Your task to perform on an android device: change the clock display to digital Image 0: 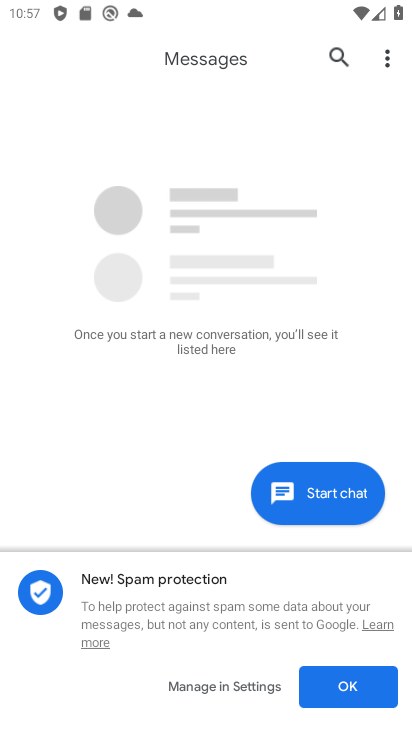
Step 0: press back button
Your task to perform on an android device: change the clock display to digital Image 1: 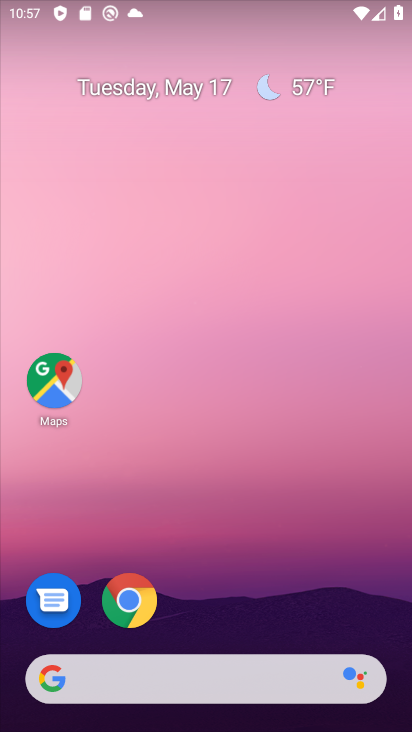
Step 1: drag from (282, 661) to (233, 242)
Your task to perform on an android device: change the clock display to digital Image 2: 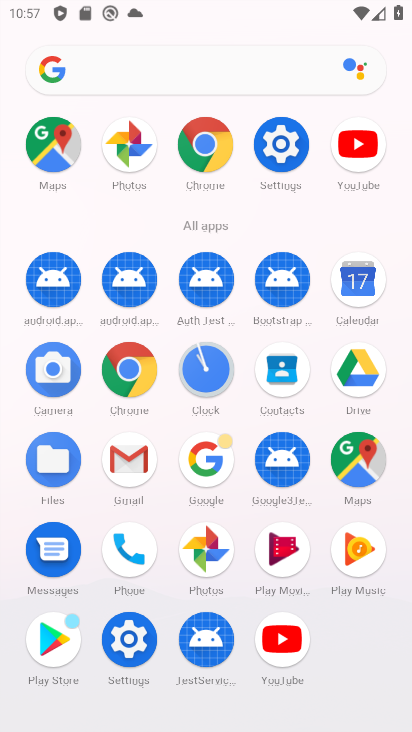
Step 2: click (194, 363)
Your task to perform on an android device: change the clock display to digital Image 3: 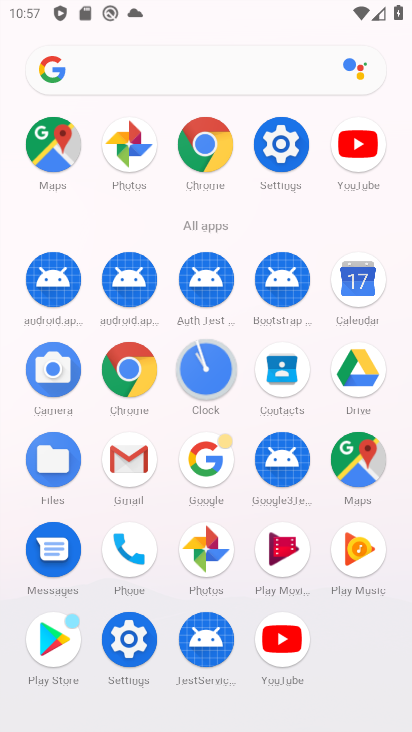
Step 3: click (203, 360)
Your task to perform on an android device: change the clock display to digital Image 4: 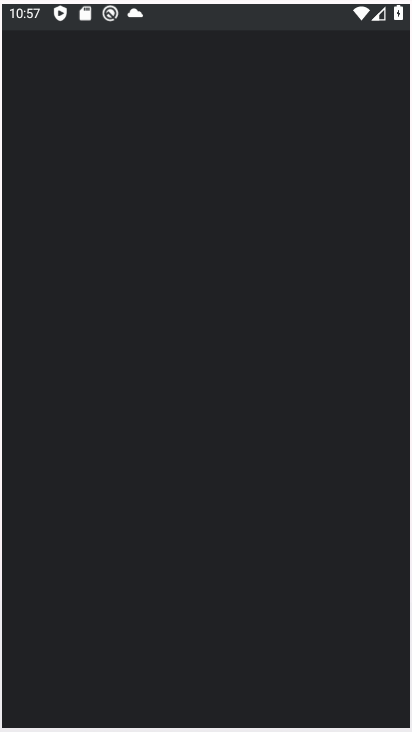
Step 4: click (205, 360)
Your task to perform on an android device: change the clock display to digital Image 5: 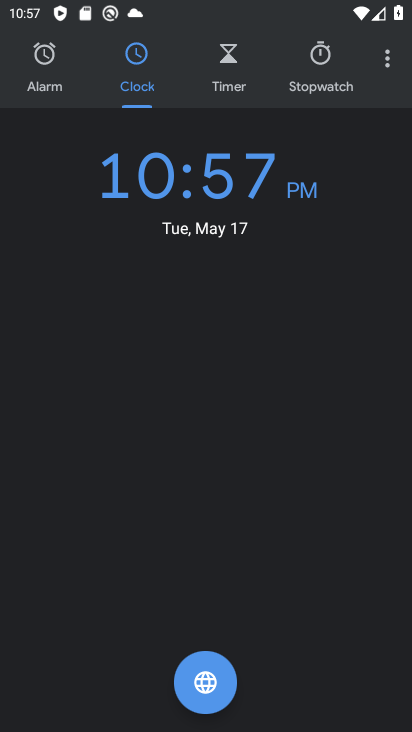
Step 5: click (386, 56)
Your task to perform on an android device: change the clock display to digital Image 6: 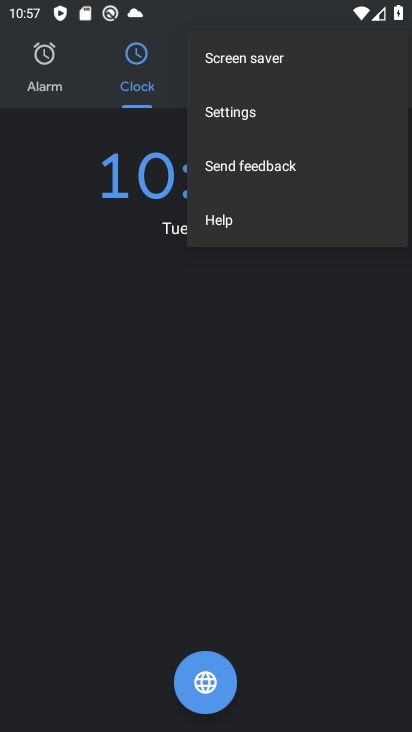
Step 6: click (240, 113)
Your task to perform on an android device: change the clock display to digital Image 7: 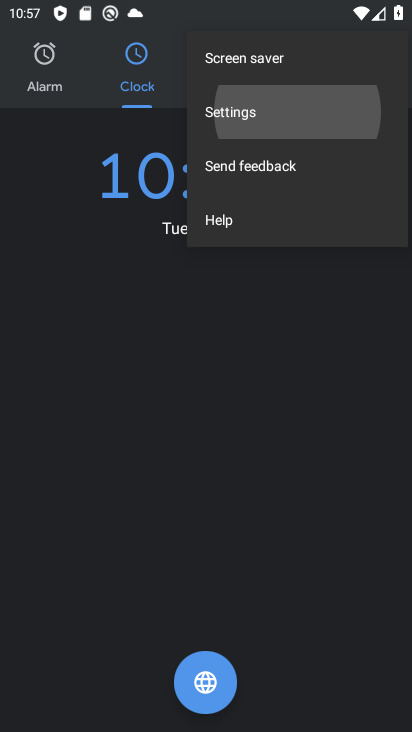
Step 7: click (240, 113)
Your task to perform on an android device: change the clock display to digital Image 8: 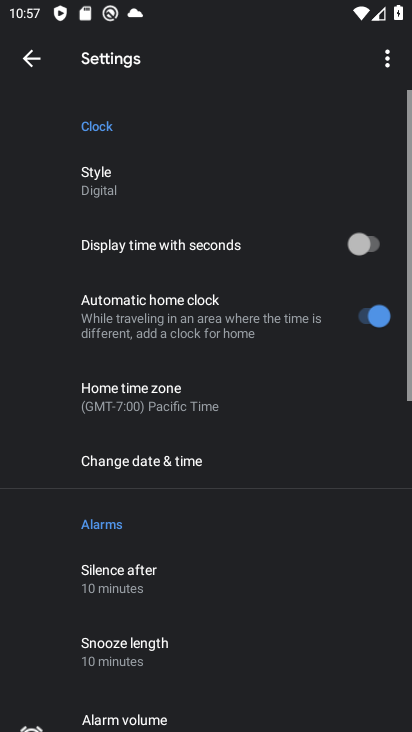
Step 8: click (155, 152)
Your task to perform on an android device: change the clock display to digital Image 9: 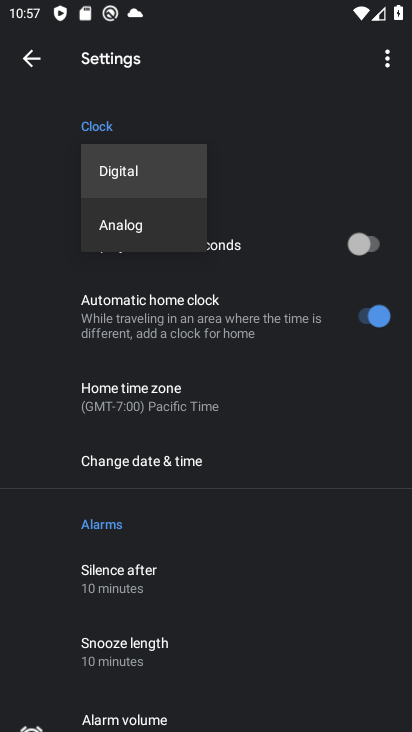
Step 9: click (146, 178)
Your task to perform on an android device: change the clock display to digital Image 10: 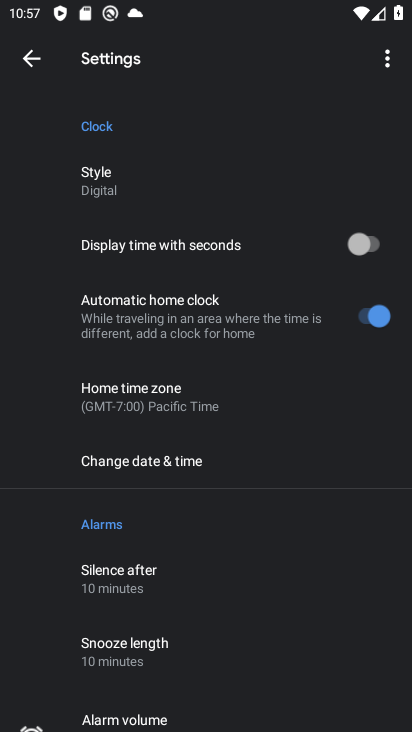
Step 10: task complete